Your task to perform on an android device: Show me the alarms in the clock app Image 0: 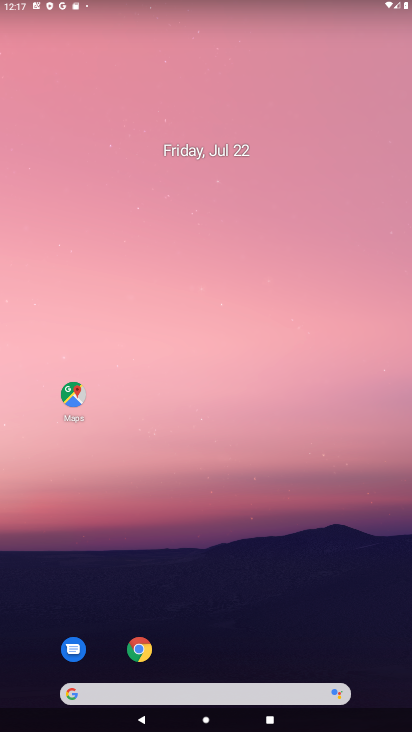
Step 0: drag from (223, 717) to (181, 244)
Your task to perform on an android device: Show me the alarms in the clock app Image 1: 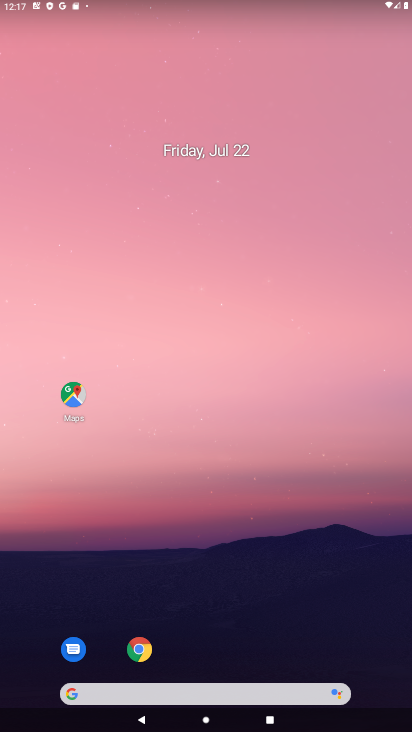
Step 1: drag from (227, 727) to (181, 91)
Your task to perform on an android device: Show me the alarms in the clock app Image 2: 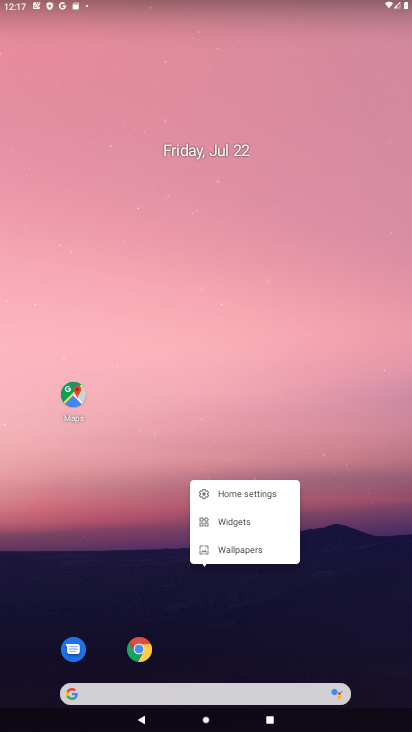
Step 2: click (257, 361)
Your task to perform on an android device: Show me the alarms in the clock app Image 3: 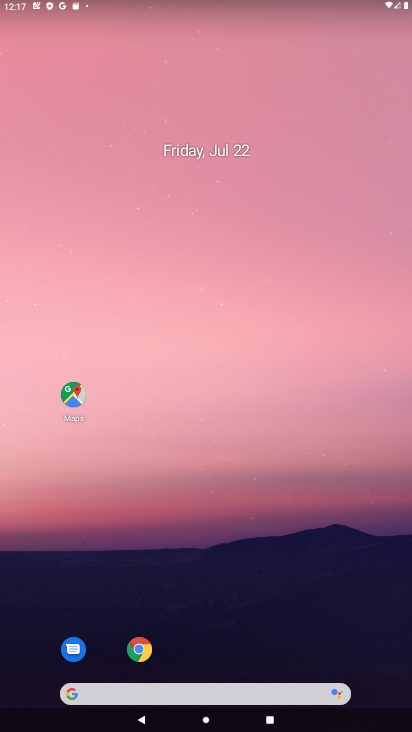
Step 3: drag from (222, 695) to (203, 272)
Your task to perform on an android device: Show me the alarms in the clock app Image 4: 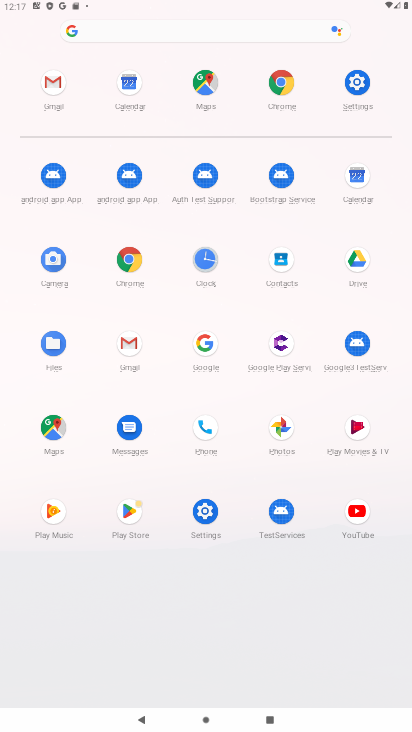
Step 4: click (210, 257)
Your task to perform on an android device: Show me the alarms in the clock app Image 5: 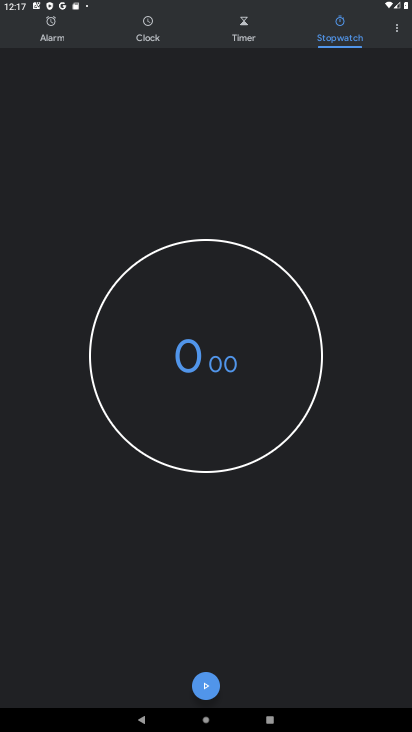
Step 5: click (45, 33)
Your task to perform on an android device: Show me the alarms in the clock app Image 6: 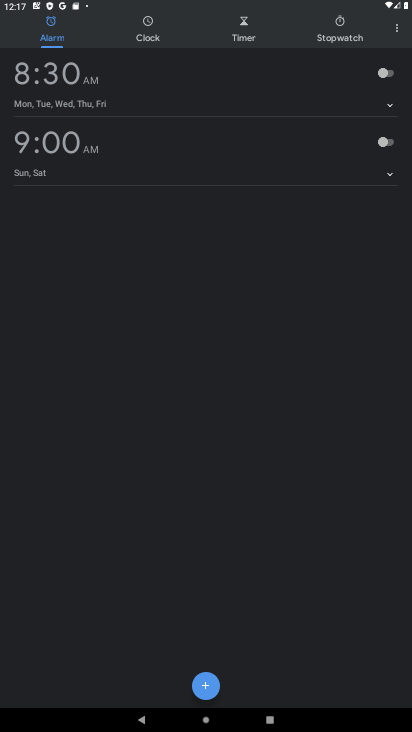
Step 6: task complete